Your task to perform on an android device: Open Youtube and go to "Your channel" Image 0: 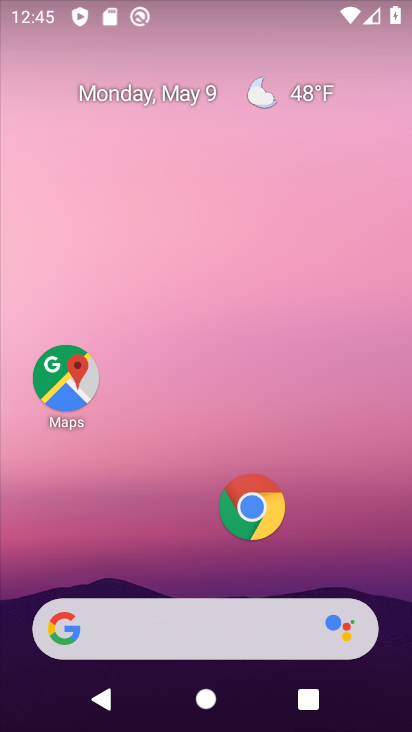
Step 0: drag from (168, 523) to (184, 93)
Your task to perform on an android device: Open Youtube and go to "Your channel" Image 1: 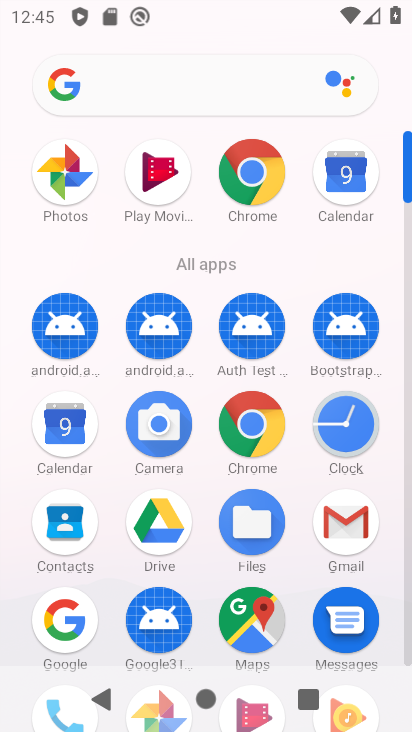
Step 1: drag from (199, 575) to (215, 124)
Your task to perform on an android device: Open Youtube and go to "Your channel" Image 2: 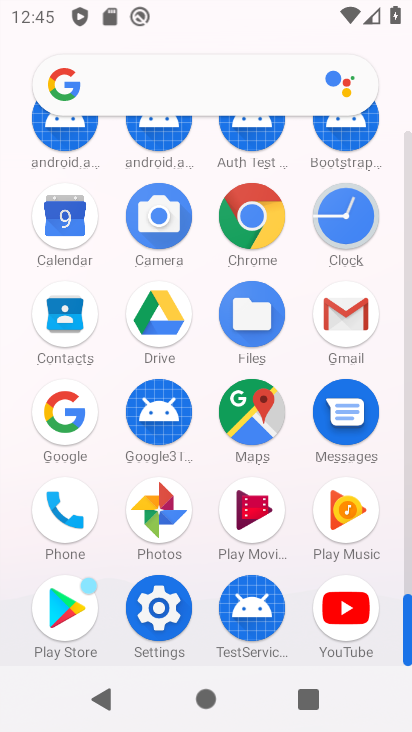
Step 2: click (348, 605)
Your task to perform on an android device: Open Youtube and go to "Your channel" Image 3: 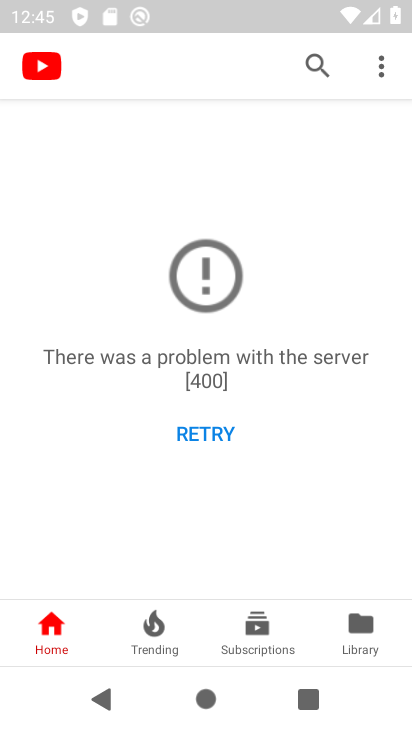
Step 3: click (376, 71)
Your task to perform on an android device: Open Youtube and go to "Your channel" Image 4: 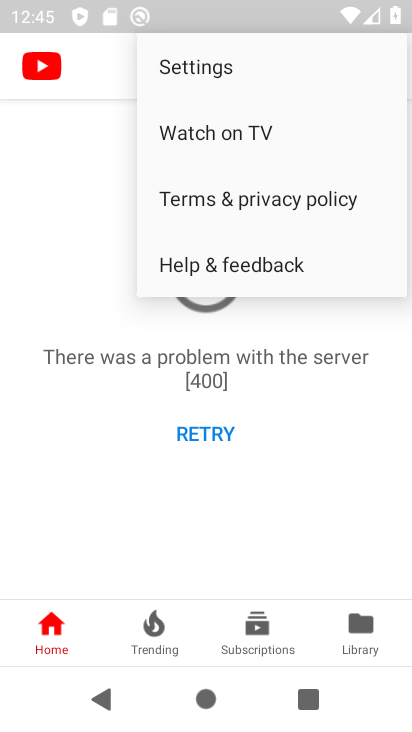
Step 4: click (80, 200)
Your task to perform on an android device: Open Youtube and go to "Your channel" Image 5: 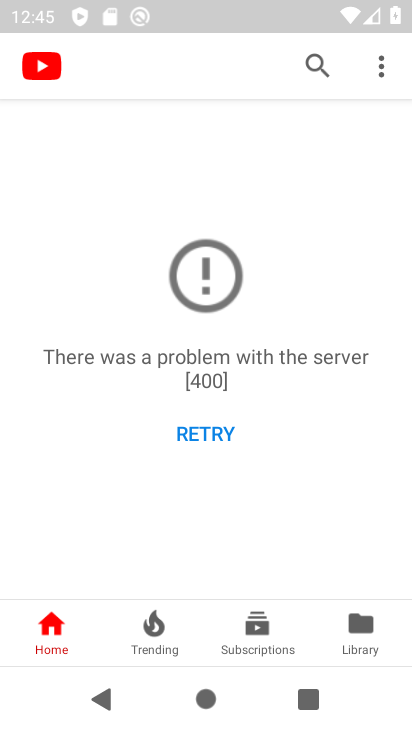
Step 5: task complete